Your task to perform on an android device: Search for sushi restaurants on Maps Image 0: 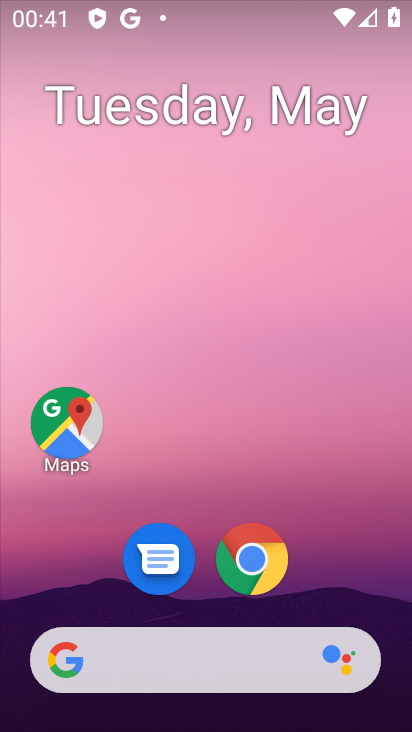
Step 0: click (66, 453)
Your task to perform on an android device: Search for sushi restaurants on Maps Image 1: 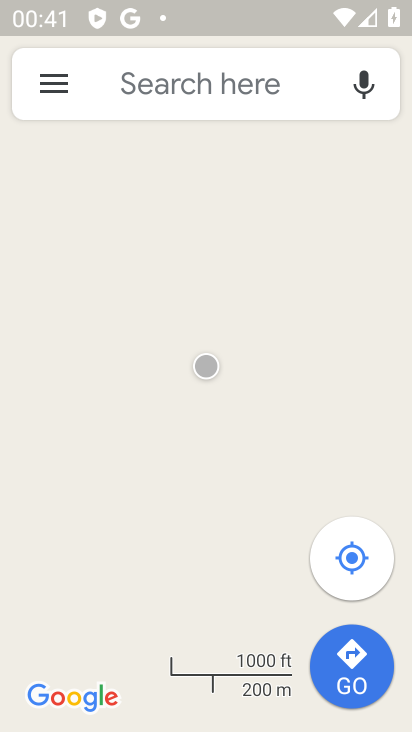
Step 1: click (220, 86)
Your task to perform on an android device: Search for sushi restaurants on Maps Image 2: 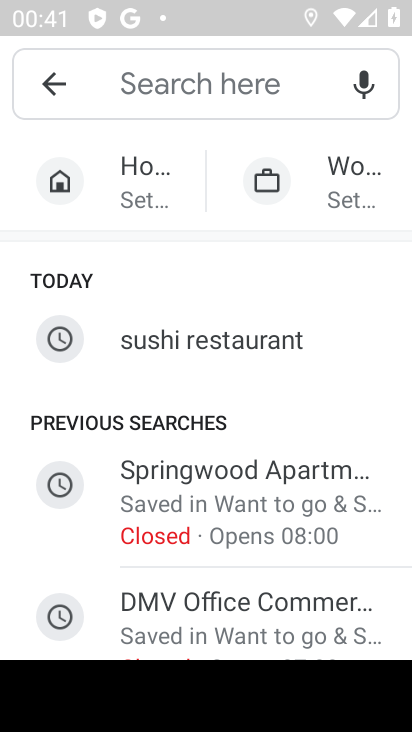
Step 2: type "sushi "
Your task to perform on an android device: Search for sushi restaurants on Maps Image 3: 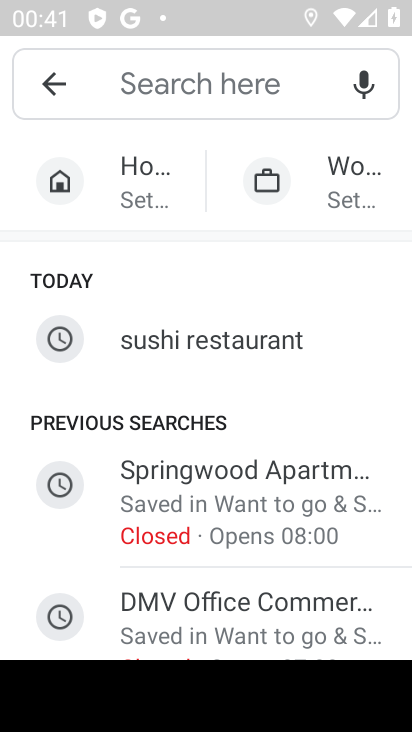
Step 3: click (172, 349)
Your task to perform on an android device: Search for sushi restaurants on Maps Image 4: 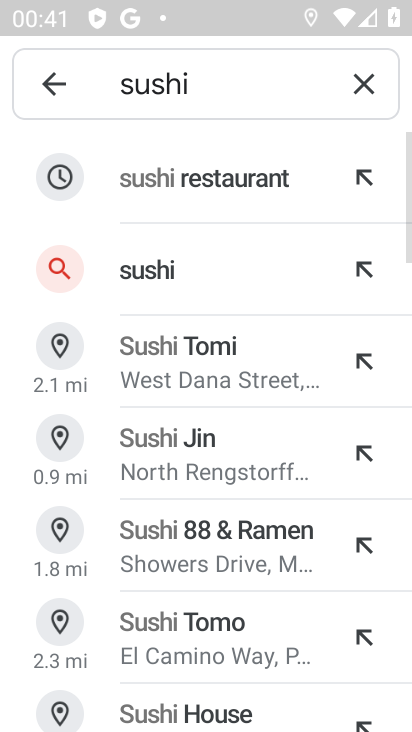
Step 4: click (122, 181)
Your task to perform on an android device: Search for sushi restaurants on Maps Image 5: 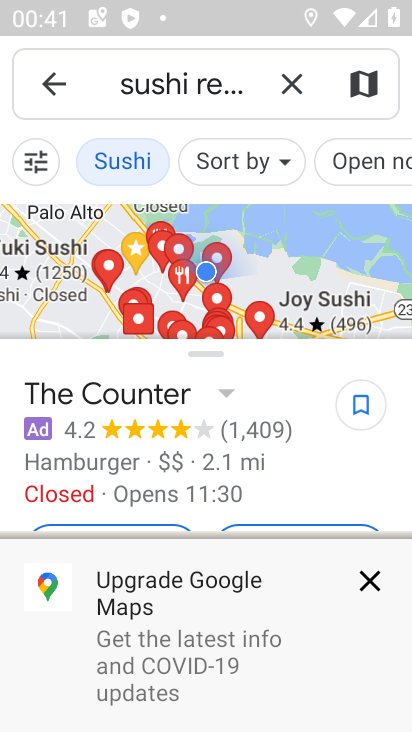
Step 5: task complete